Your task to perform on an android device: delete browsing data in the chrome app Image 0: 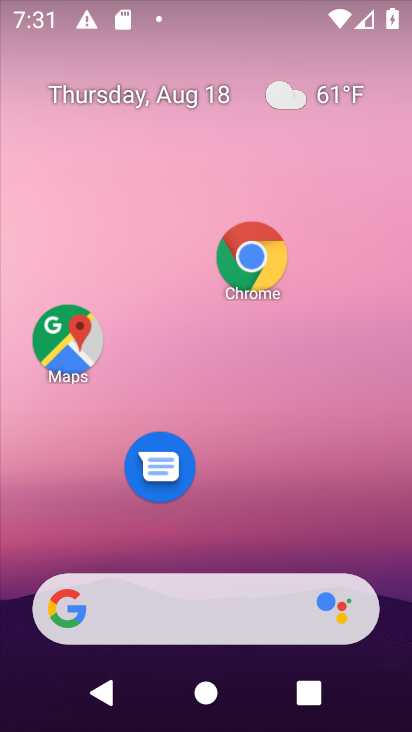
Step 0: drag from (286, 491) to (361, 176)
Your task to perform on an android device: delete browsing data in the chrome app Image 1: 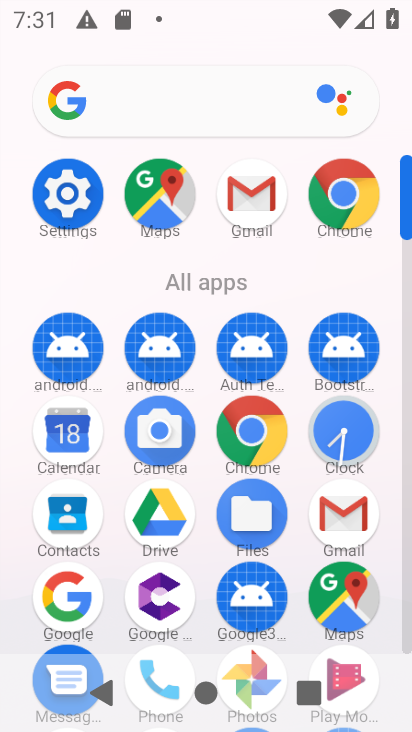
Step 1: click (47, 194)
Your task to perform on an android device: delete browsing data in the chrome app Image 2: 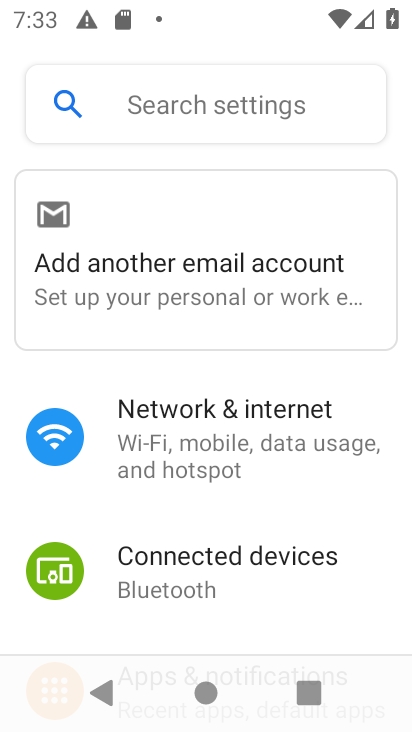
Step 2: press home button
Your task to perform on an android device: delete browsing data in the chrome app Image 3: 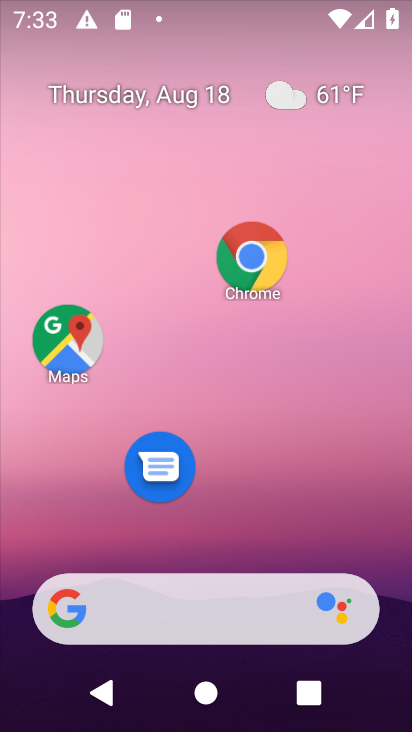
Step 3: click (256, 247)
Your task to perform on an android device: delete browsing data in the chrome app Image 4: 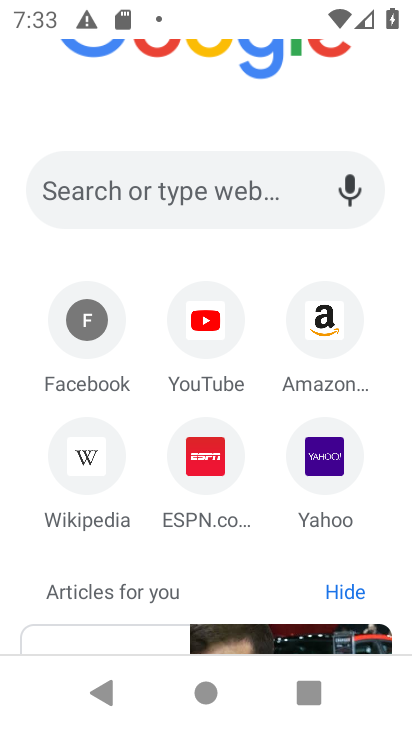
Step 4: task complete